Your task to perform on an android device: Show me popular videos on Youtube Image 0: 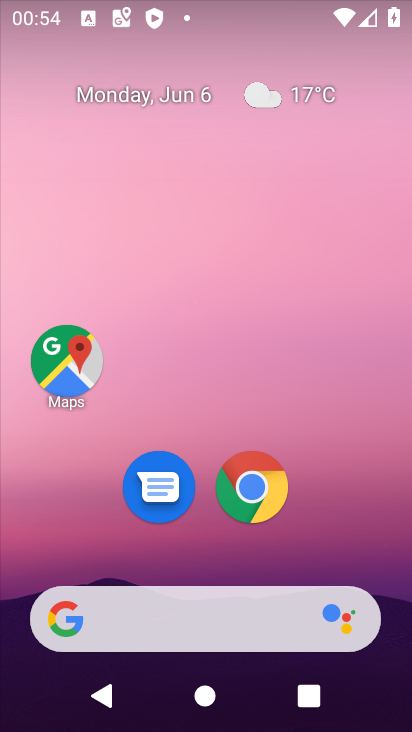
Step 0: drag from (398, 613) to (317, 159)
Your task to perform on an android device: Show me popular videos on Youtube Image 1: 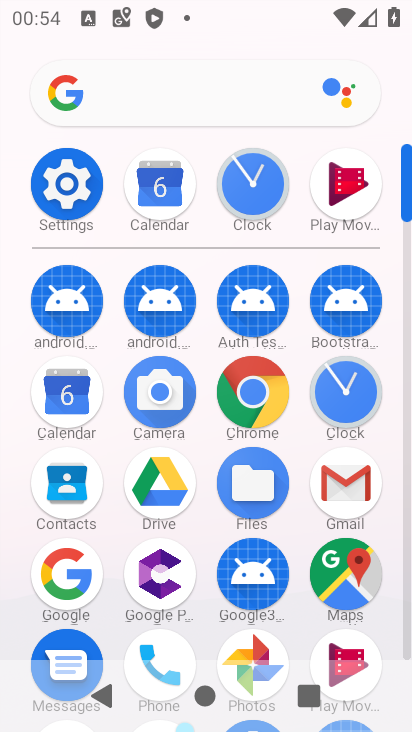
Step 1: click (409, 645)
Your task to perform on an android device: Show me popular videos on Youtube Image 2: 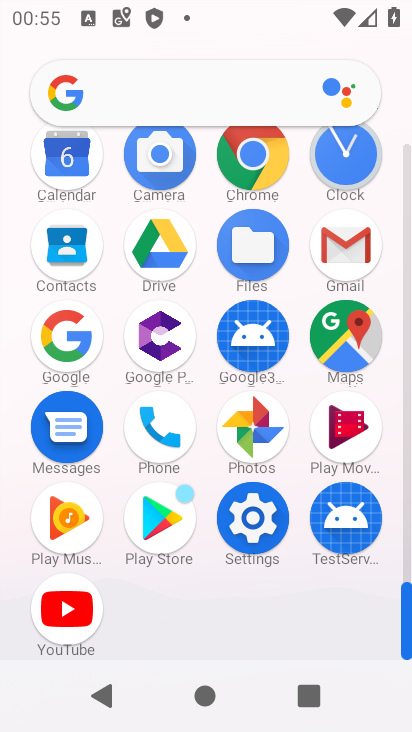
Step 2: click (65, 604)
Your task to perform on an android device: Show me popular videos on Youtube Image 3: 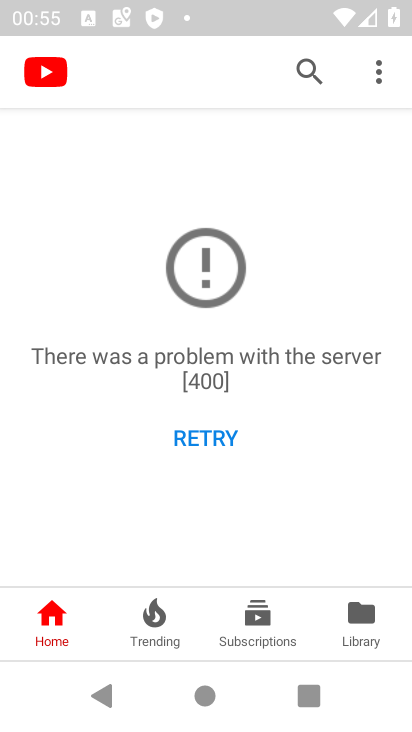
Step 3: click (199, 432)
Your task to perform on an android device: Show me popular videos on Youtube Image 4: 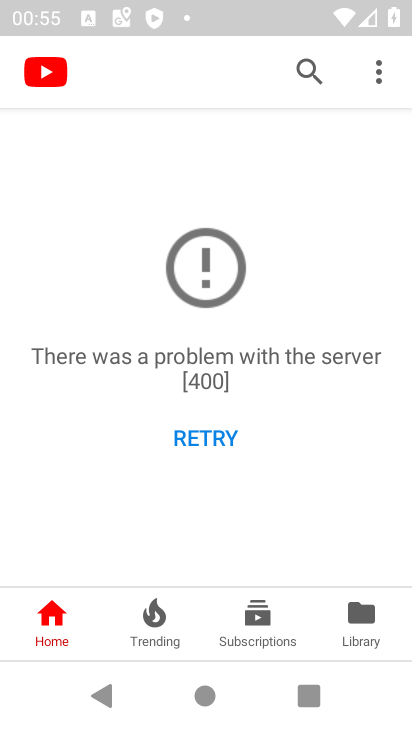
Step 4: click (156, 629)
Your task to perform on an android device: Show me popular videos on Youtube Image 5: 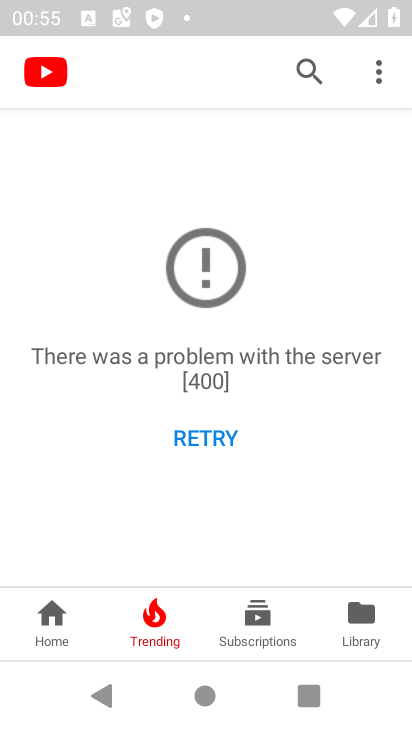
Step 5: task complete